Your task to perform on an android device: turn smart compose on in the gmail app Image 0: 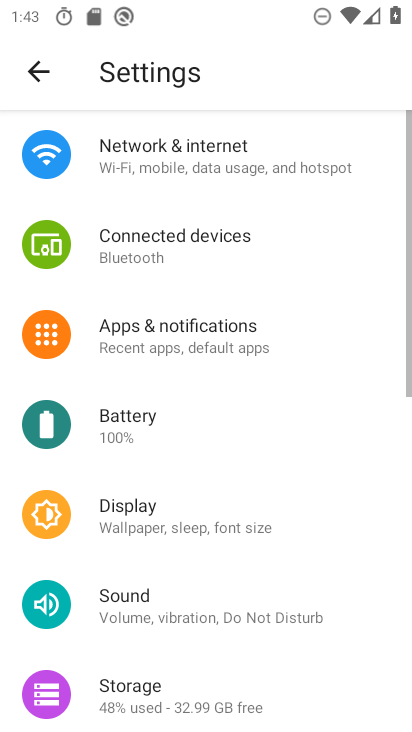
Step 0: drag from (204, 634) to (239, 241)
Your task to perform on an android device: turn smart compose on in the gmail app Image 1: 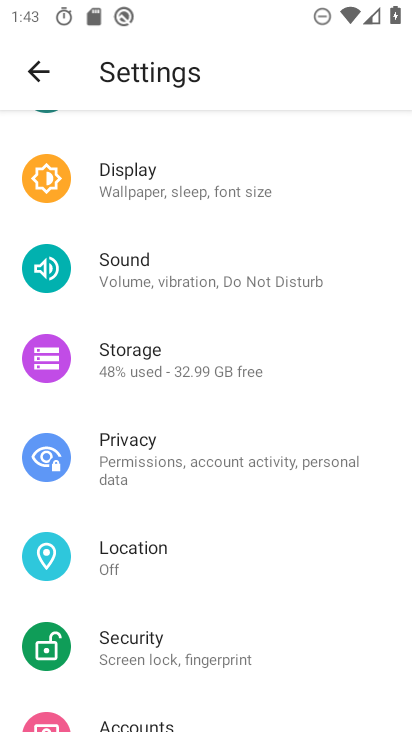
Step 1: drag from (295, 635) to (291, 466)
Your task to perform on an android device: turn smart compose on in the gmail app Image 2: 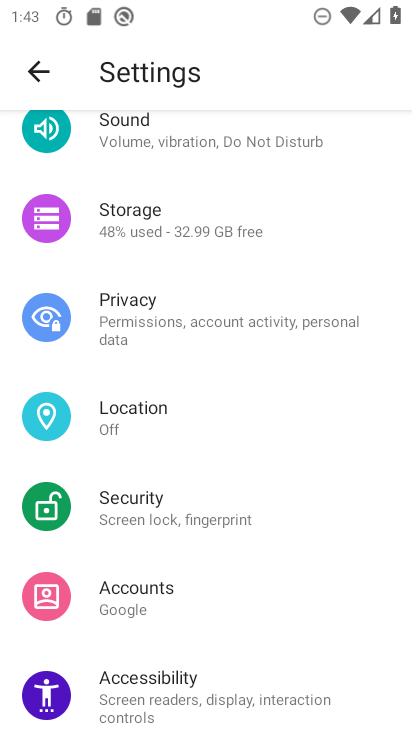
Step 2: press home button
Your task to perform on an android device: turn smart compose on in the gmail app Image 3: 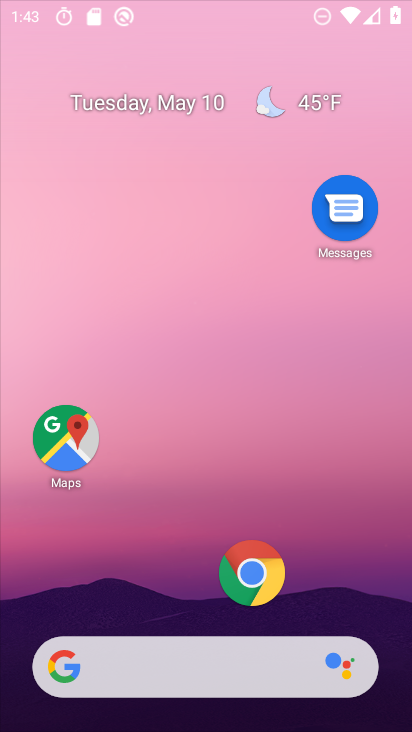
Step 3: drag from (183, 626) to (240, 247)
Your task to perform on an android device: turn smart compose on in the gmail app Image 4: 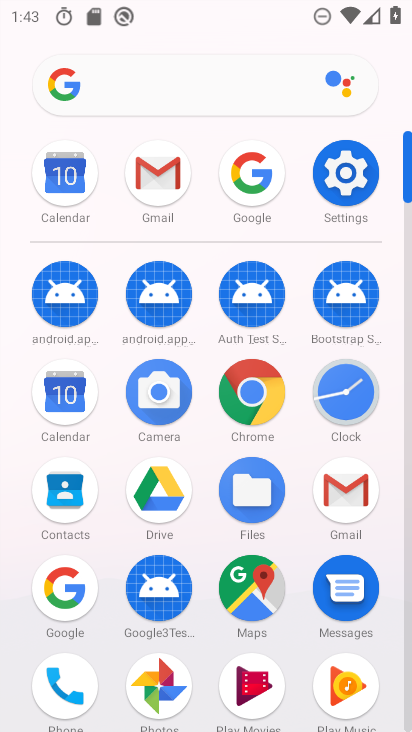
Step 4: click (339, 501)
Your task to perform on an android device: turn smart compose on in the gmail app Image 5: 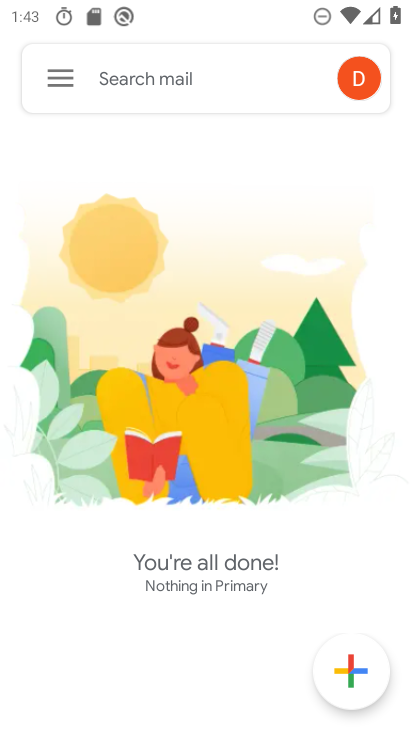
Step 5: click (58, 65)
Your task to perform on an android device: turn smart compose on in the gmail app Image 6: 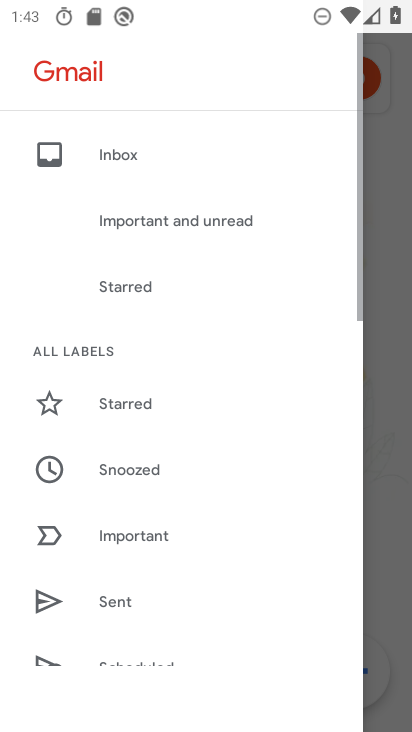
Step 6: drag from (187, 602) to (214, 176)
Your task to perform on an android device: turn smart compose on in the gmail app Image 7: 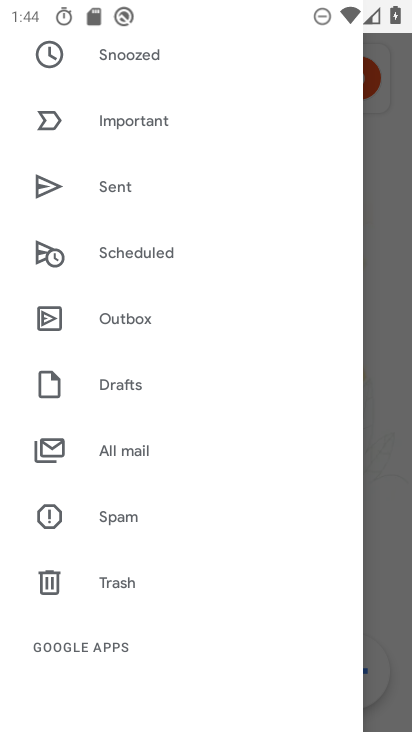
Step 7: drag from (196, 615) to (238, 289)
Your task to perform on an android device: turn smart compose on in the gmail app Image 8: 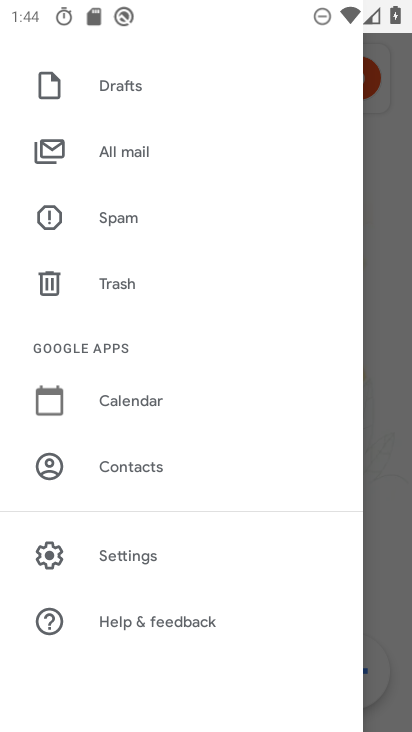
Step 8: click (132, 557)
Your task to perform on an android device: turn smart compose on in the gmail app Image 9: 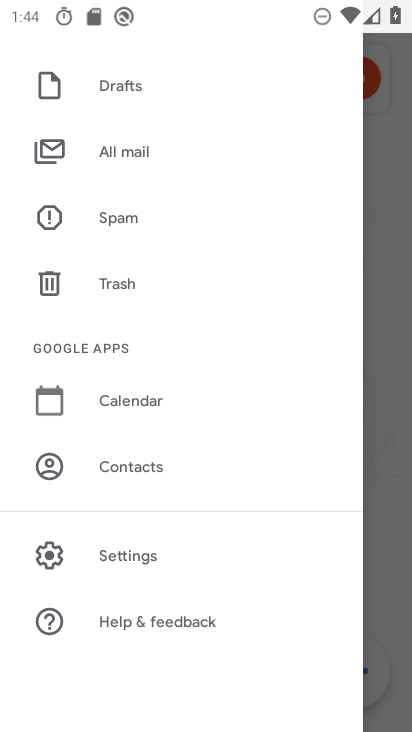
Step 9: click (132, 557)
Your task to perform on an android device: turn smart compose on in the gmail app Image 10: 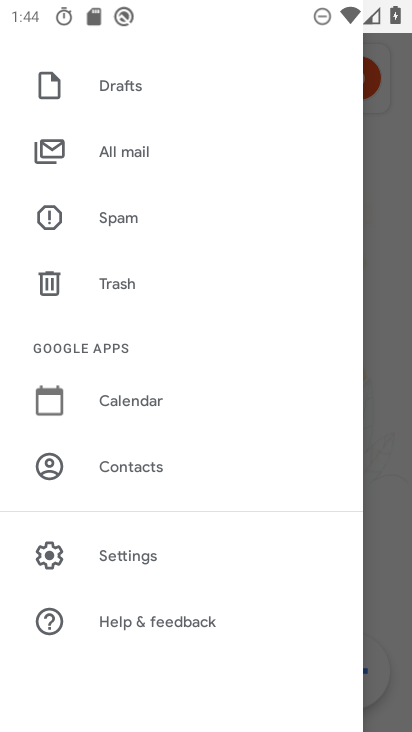
Step 10: click (148, 558)
Your task to perform on an android device: turn smart compose on in the gmail app Image 11: 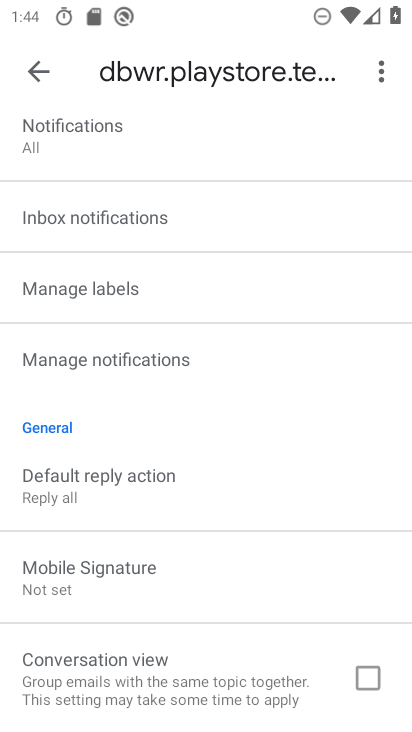
Step 11: task complete